Your task to perform on an android device: Open settings Image 0: 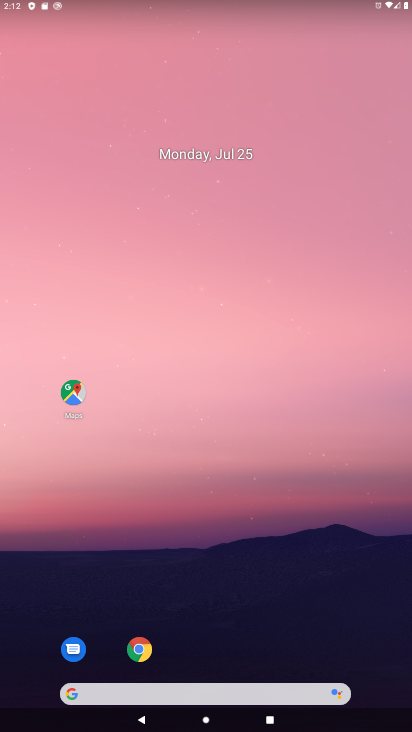
Step 0: drag from (366, 657) to (327, 25)
Your task to perform on an android device: Open settings Image 1: 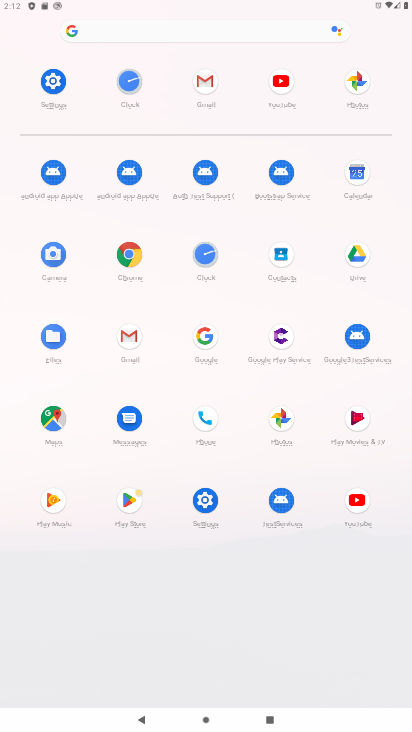
Step 1: click (205, 502)
Your task to perform on an android device: Open settings Image 2: 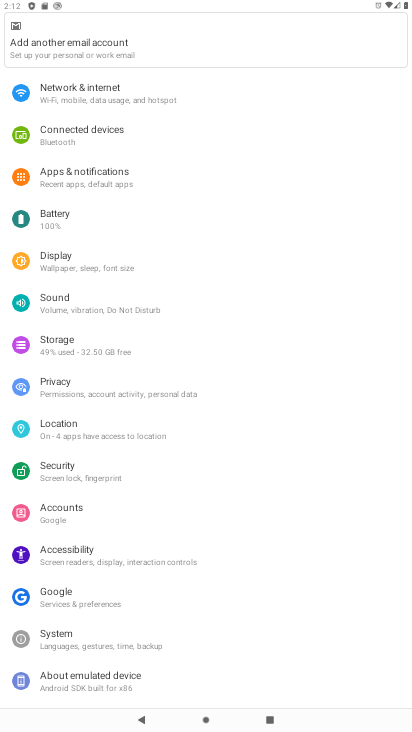
Step 2: task complete